Your task to perform on an android device: change the clock display to analog Image 0: 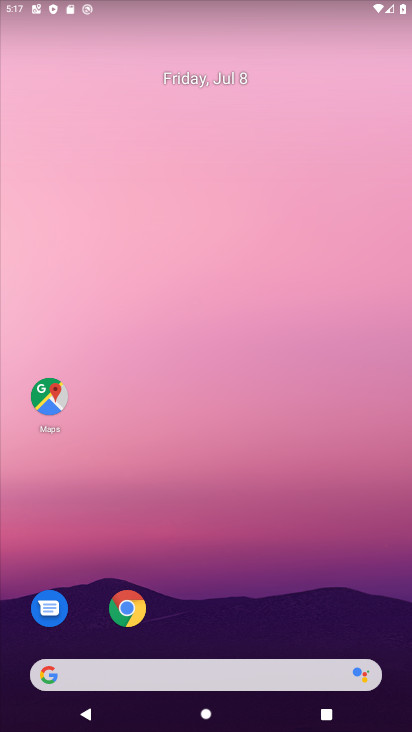
Step 0: drag from (271, 662) to (330, 7)
Your task to perform on an android device: change the clock display to analog Image 1: 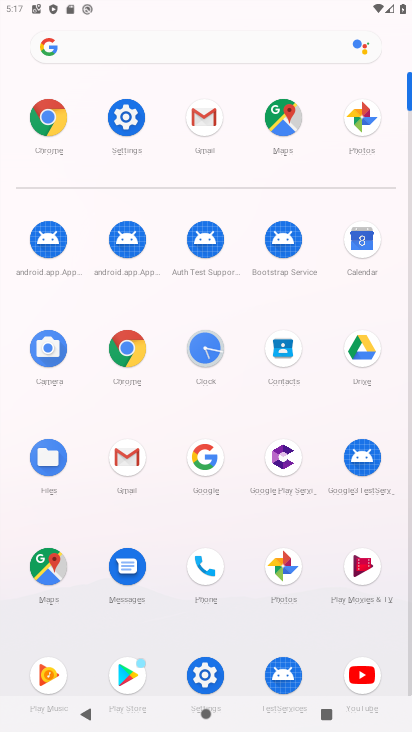
Step 1: click (205, 336)
Your task to perform on an android device: change the clock display to analog Image 2: 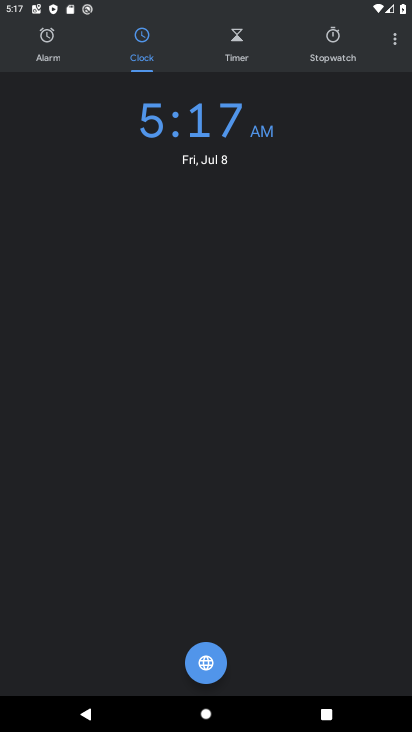
Step 2: click (394, 38)
Your task to perform on an android device: change the clock display to analog Image 3: 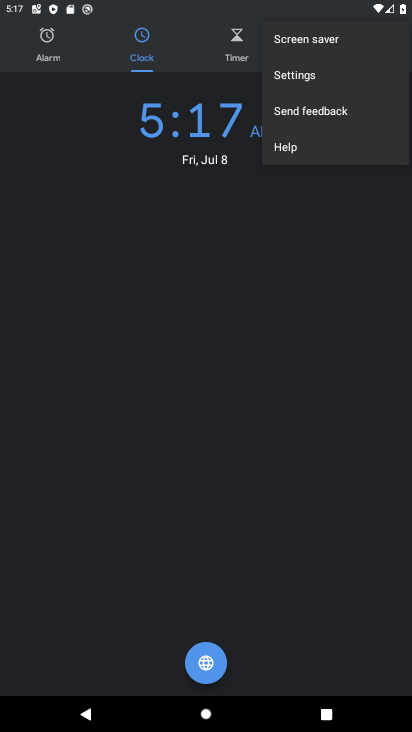
Step 3: click (309, 78)
Your task to perform on an android device: change the clock display to analog Image 4: 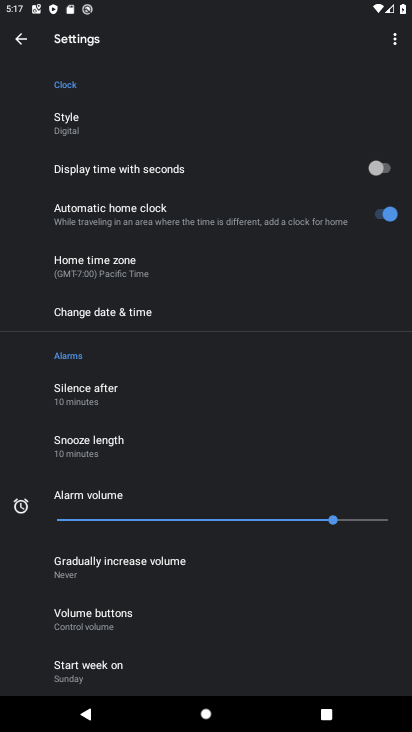
Step 4: click (84, 124)
Your task to perform on an android device: change the clock display to analog Image 5: 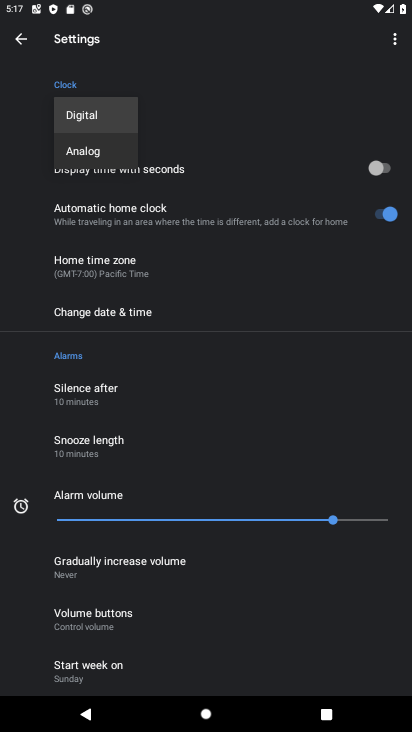
Step 5: click (88, 141)
Your task to perform on an android device: change the clock display to analog Image 6: 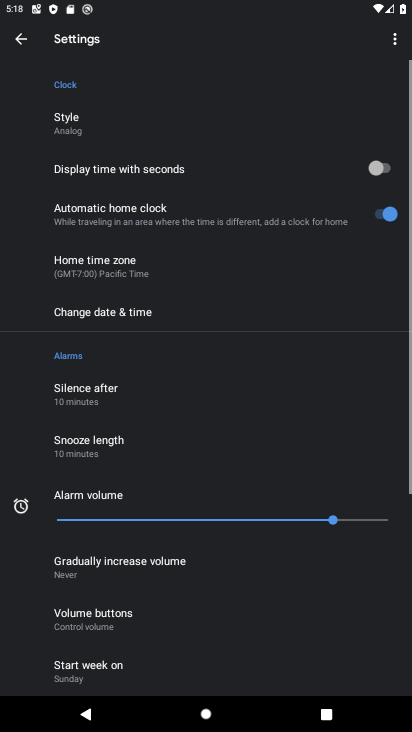
Step 6: task complete